Your task to perform on an android device: Open settings on Google Maps Image 0: 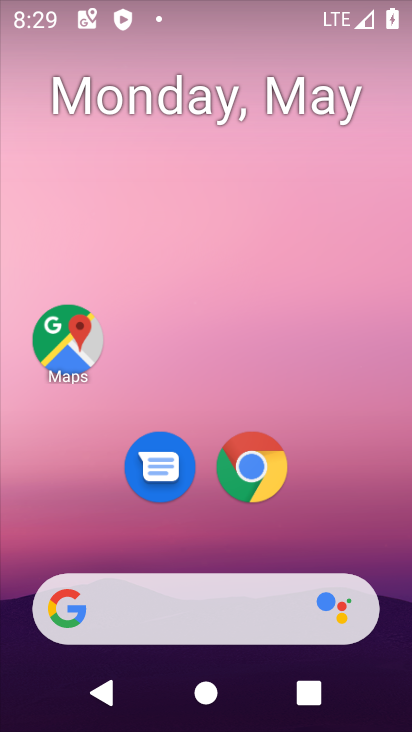
Step 0: click (67, 322)
Your task to perform on an android device: Open settings on Google Maps Image 1: 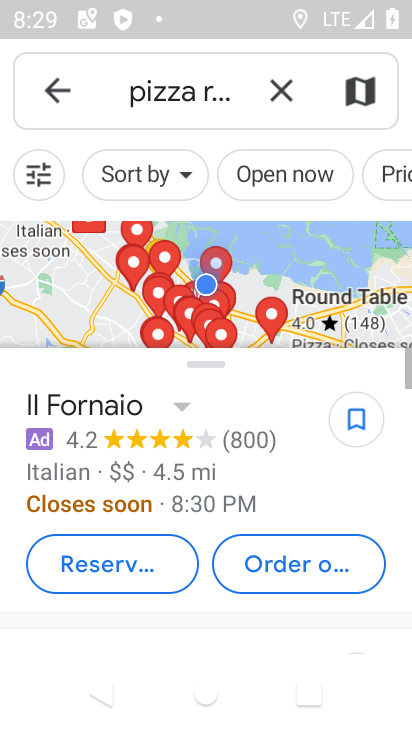
Step 1: click (283, 90)
Your task to perform on an android device: Open settings on Google Maps Image 2: 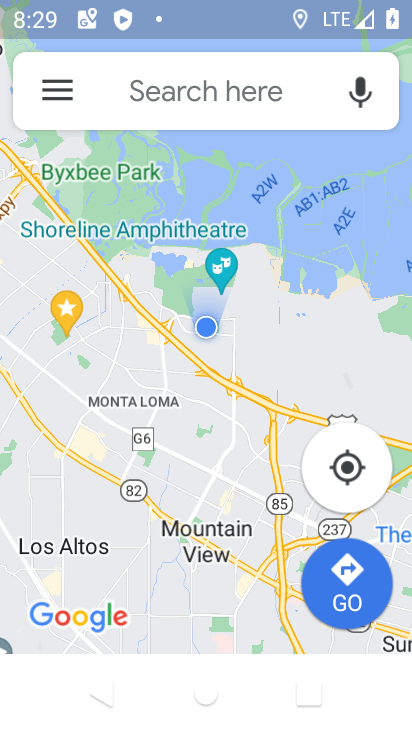
Step 2: click (54, 77)
Your task to perform on an android device: Open settings on Google Maps Image 3: 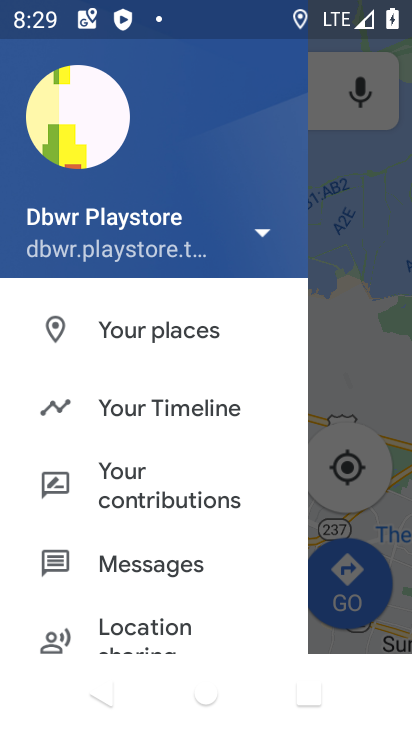
Step 3: drag from (177, 598) to (170, 127)
Your task to perform on an android device: Open settings on Google Maps Image 4: 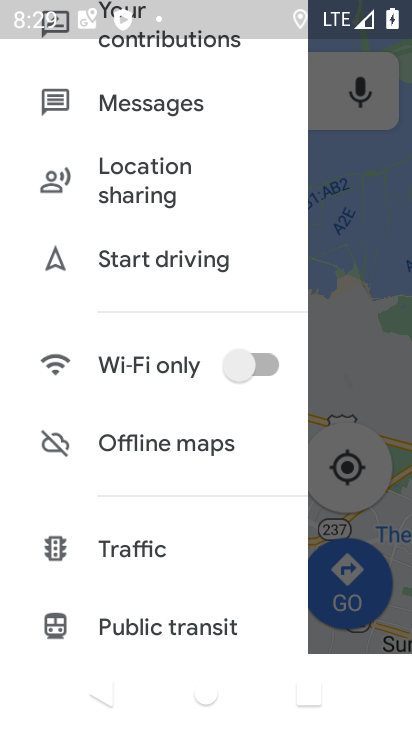
Step 4: drag from (159, 523) to (171, 118)
Your task to perform on an android device: Open settings on Google Maps Image 5: 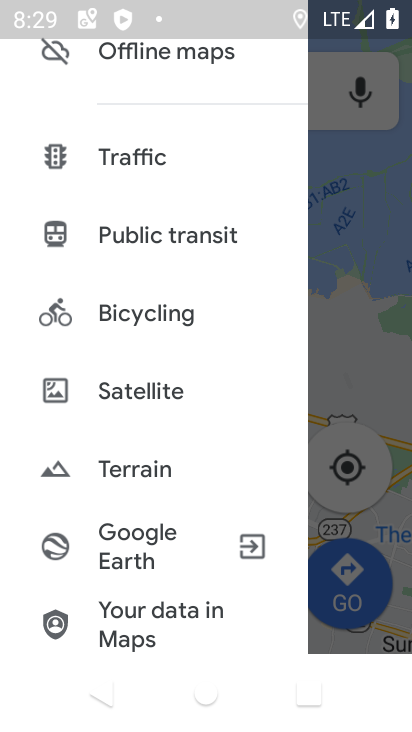
Step 5: drag from (161, 516) to (201, 151)
Your task to perform on an android device: Open settings on Google Maps Image 6: 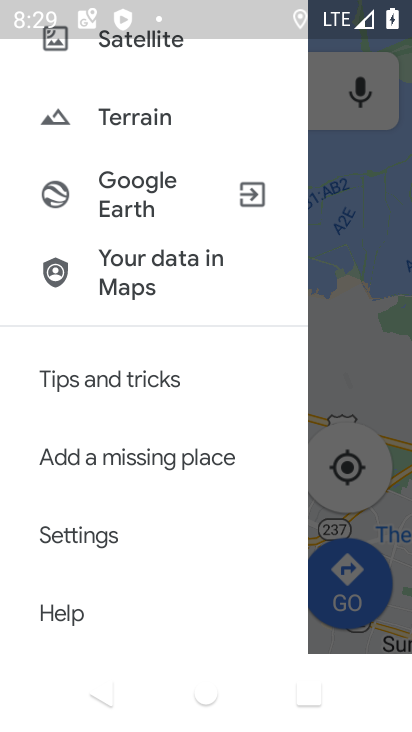
Step 6: click (133, 531)
Your task to perform on an android device: Open settings on Google Maps Image 7: 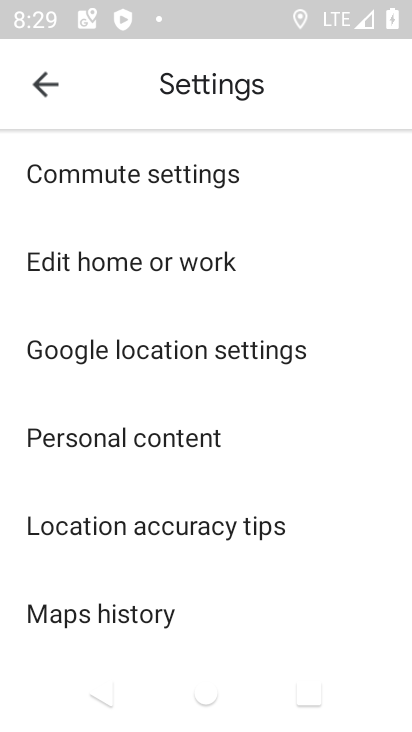
Step 7: task complete